Your task to perform on an android device: turn off javascript in the chrome app Image 0: 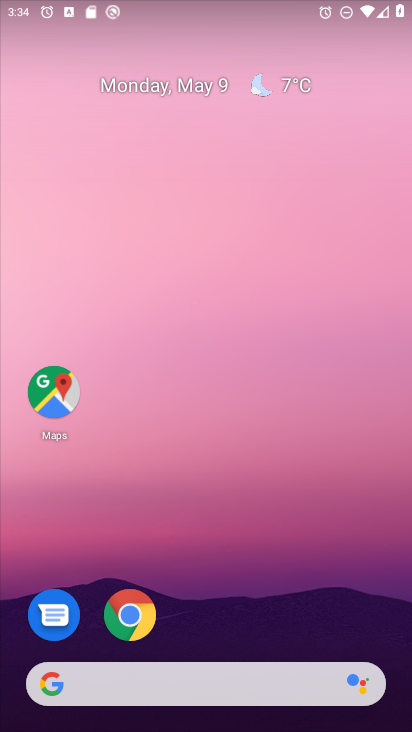
Step 0: click (126, 616)
Your task to perform on an android device: turn off javascript in the chrome app Image 1: 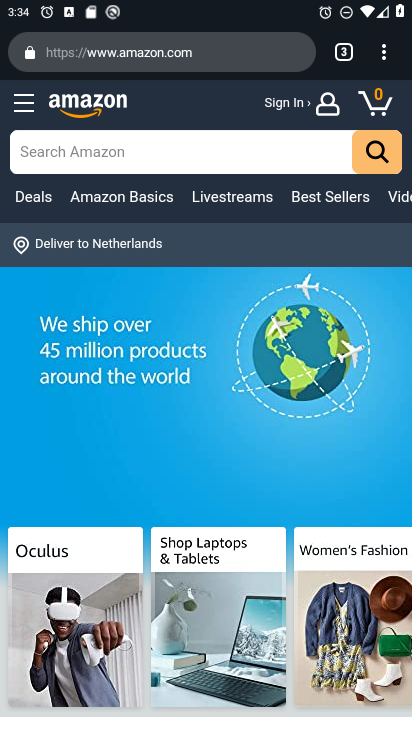
Step 1: click (383, 53)
Your task to perform on an android device: turn off javascript in the chrome app Image 2: 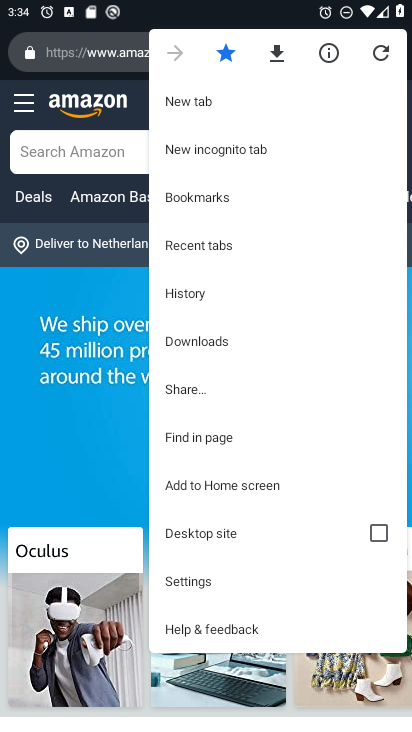
Step 2: click (201, 572)
Your task to perform on an android device: turn off javascript in the chrome app Image 3: 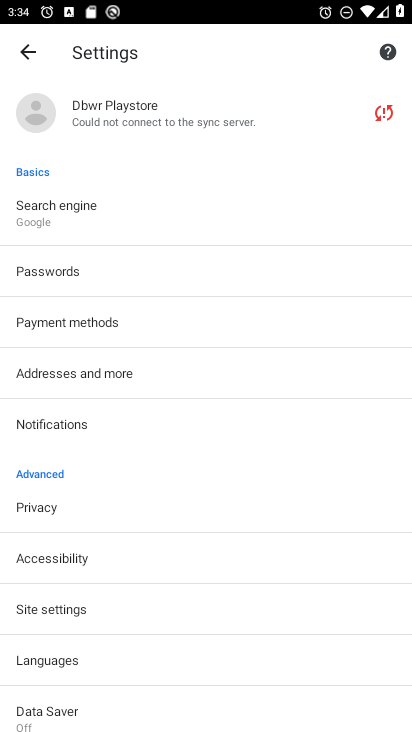
Step 3: click (64, 611)
Your task to perform on an android device: turn off javascript in the chrome app Image 4: 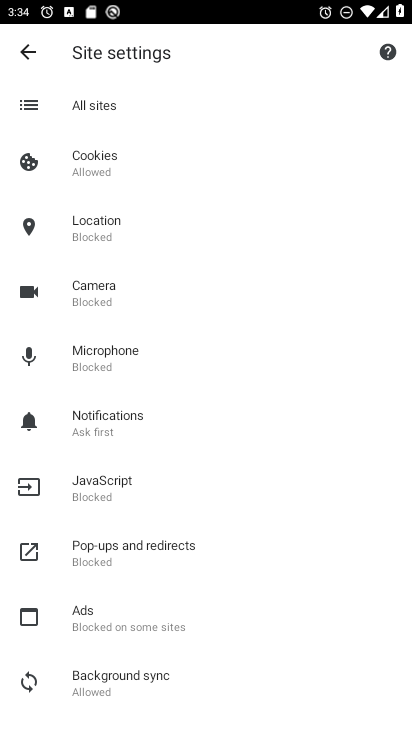
Step 4: click (93, 489)
Your task to perform on an android device: turn off javascript in the chrome app Image 5: 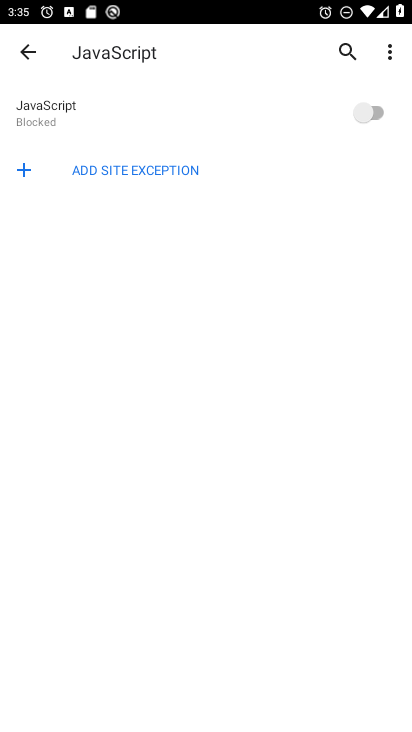
Step 5: task complete